Your task to perform on an android device: turn on translation in the chrome app Image 0: 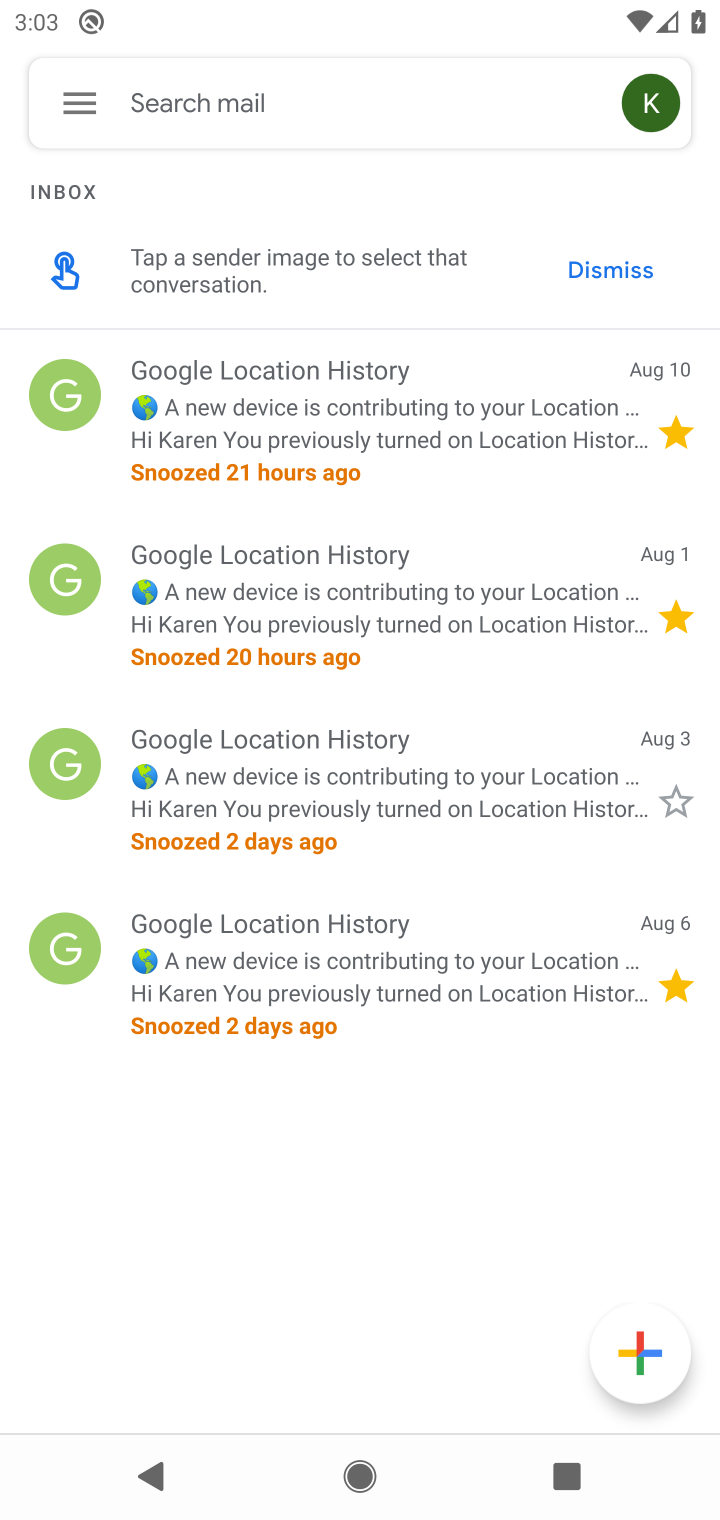
Step 0: press home button
Your task to perform on an android device: turn on translation in the chrome app Image 1: 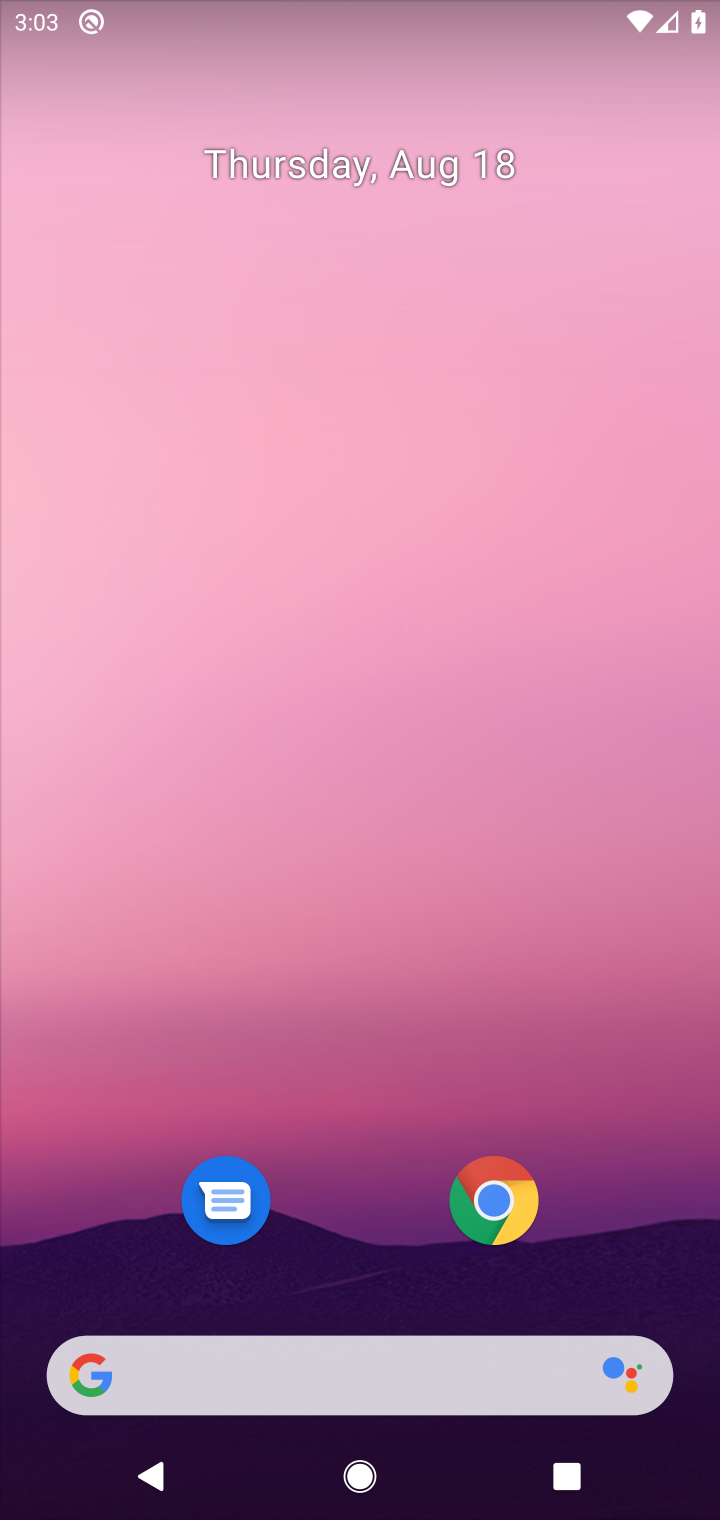
Step 1: drag from (398, 1196) to (603, 4)
Your task to perform on an android device: turn on translation in the chrome app Image 2: 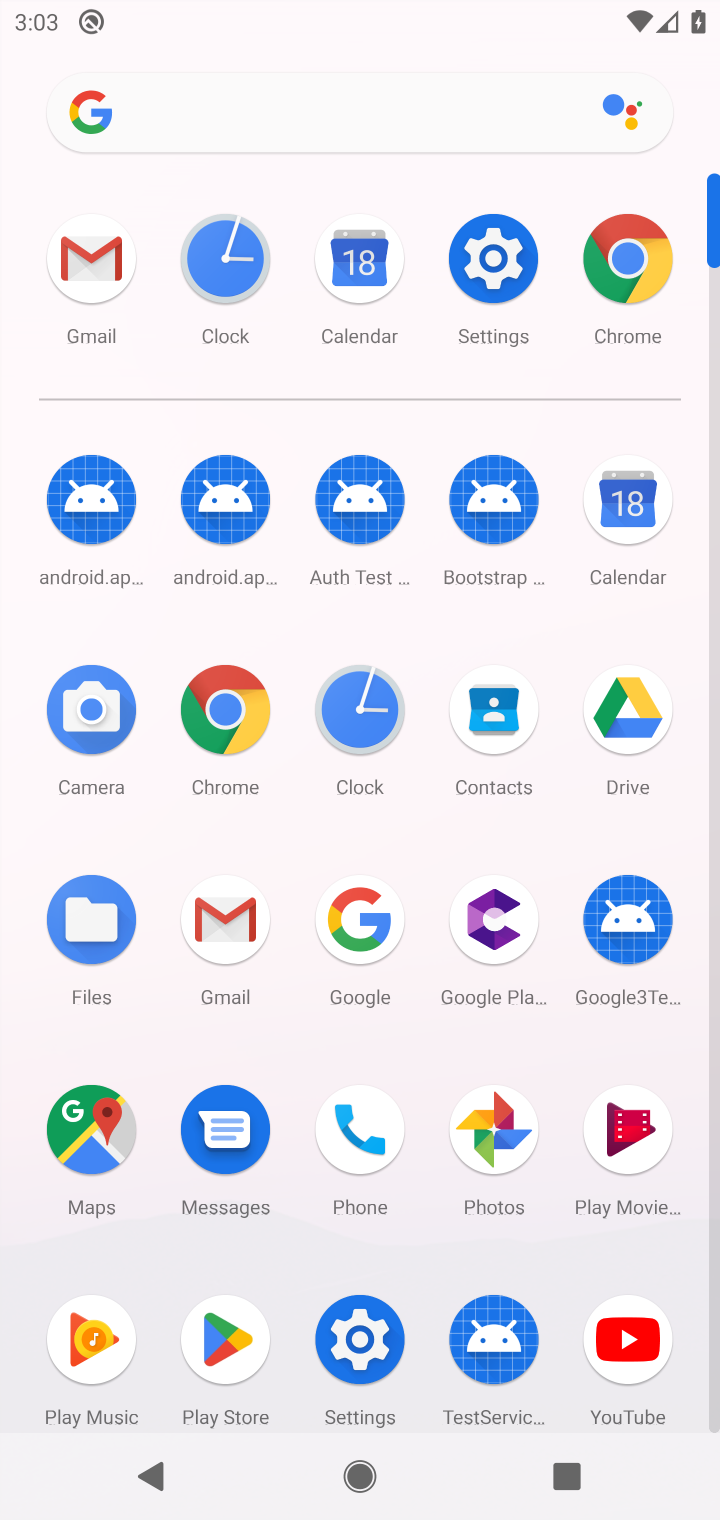
Step 2: click (225, 712)
Your task to perform on an android device: turn on translation in the chrome app Image 3: 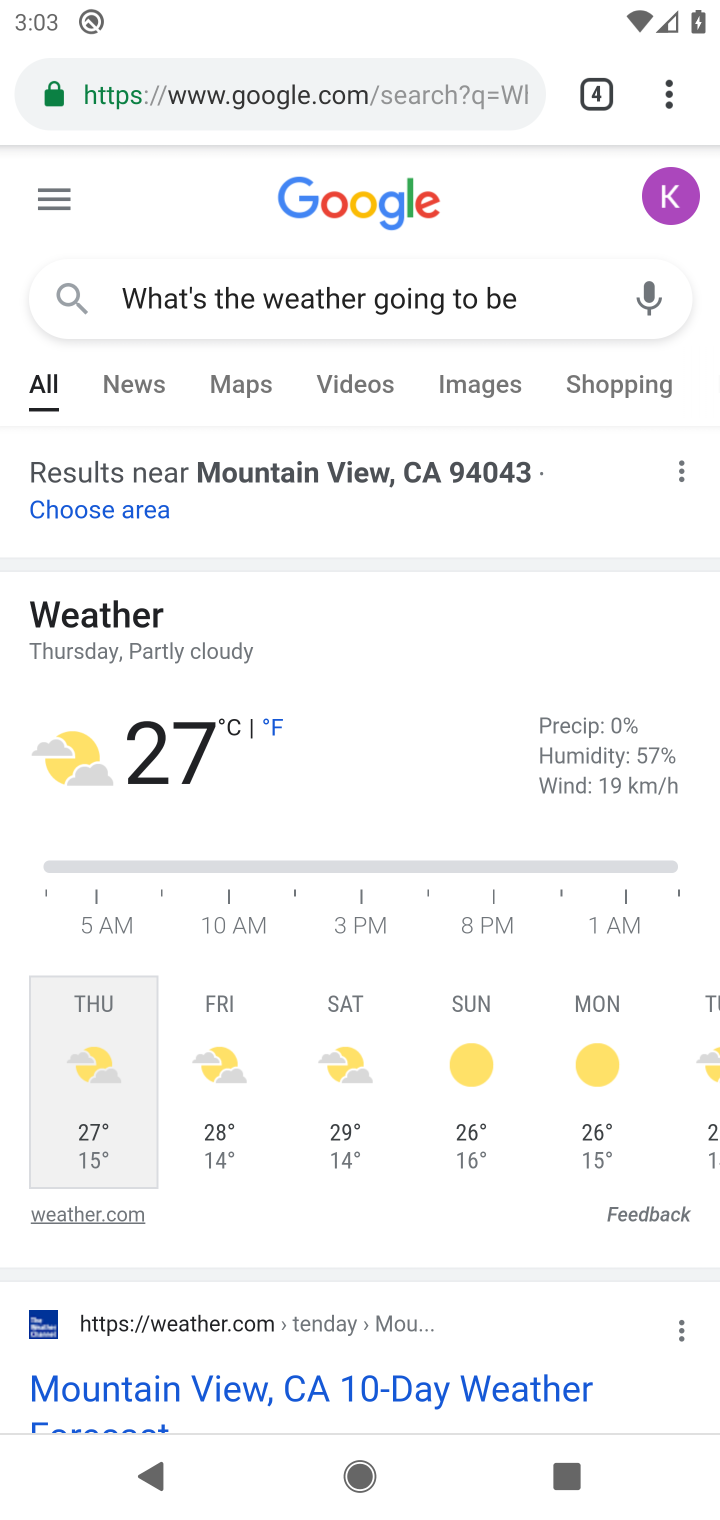
Step 3: drag from (699, 92) to (350, 1057)
Your task to perform on an android device: turn on translation in the chrome app Image 4: 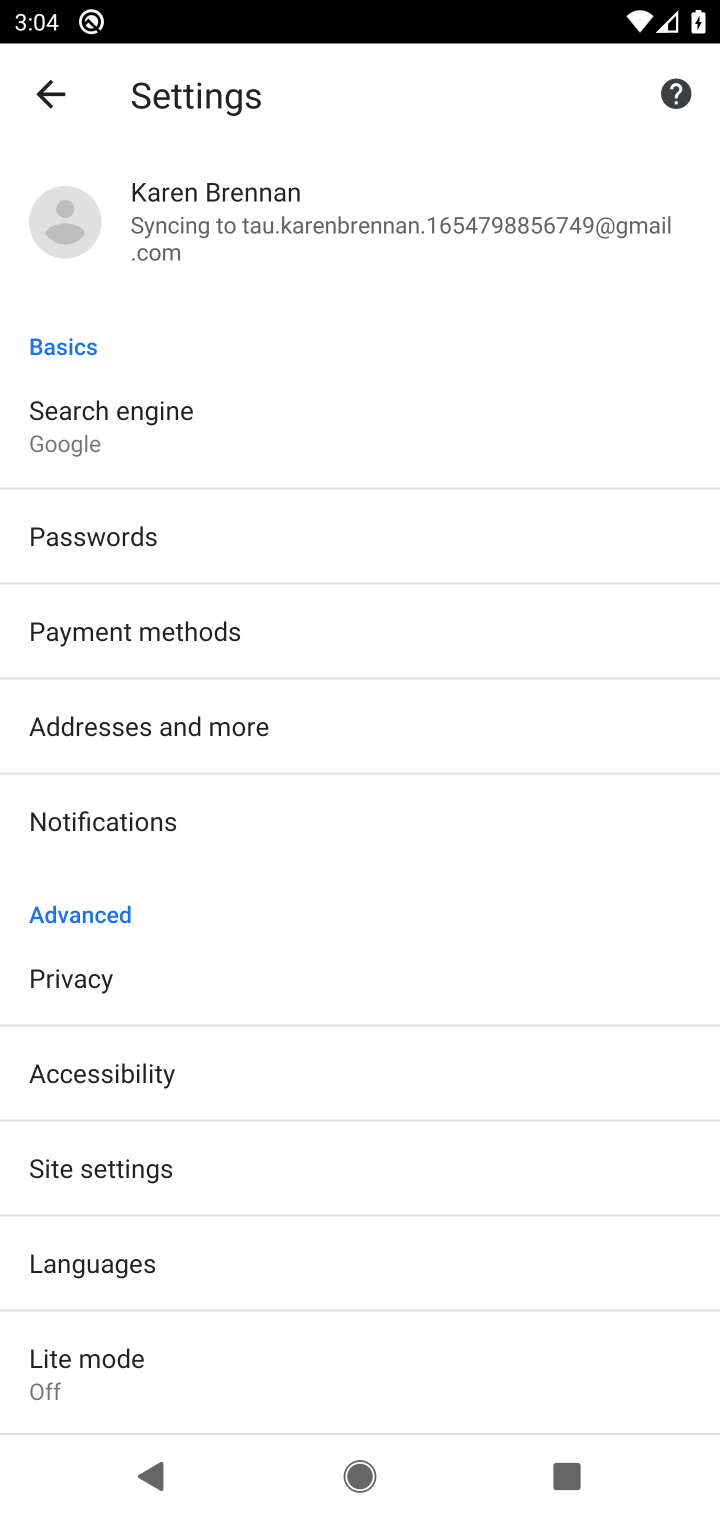
Step 4: click (160, 1255)
Your task to perform on an android device: turn on translation in the chrome app Image 5: 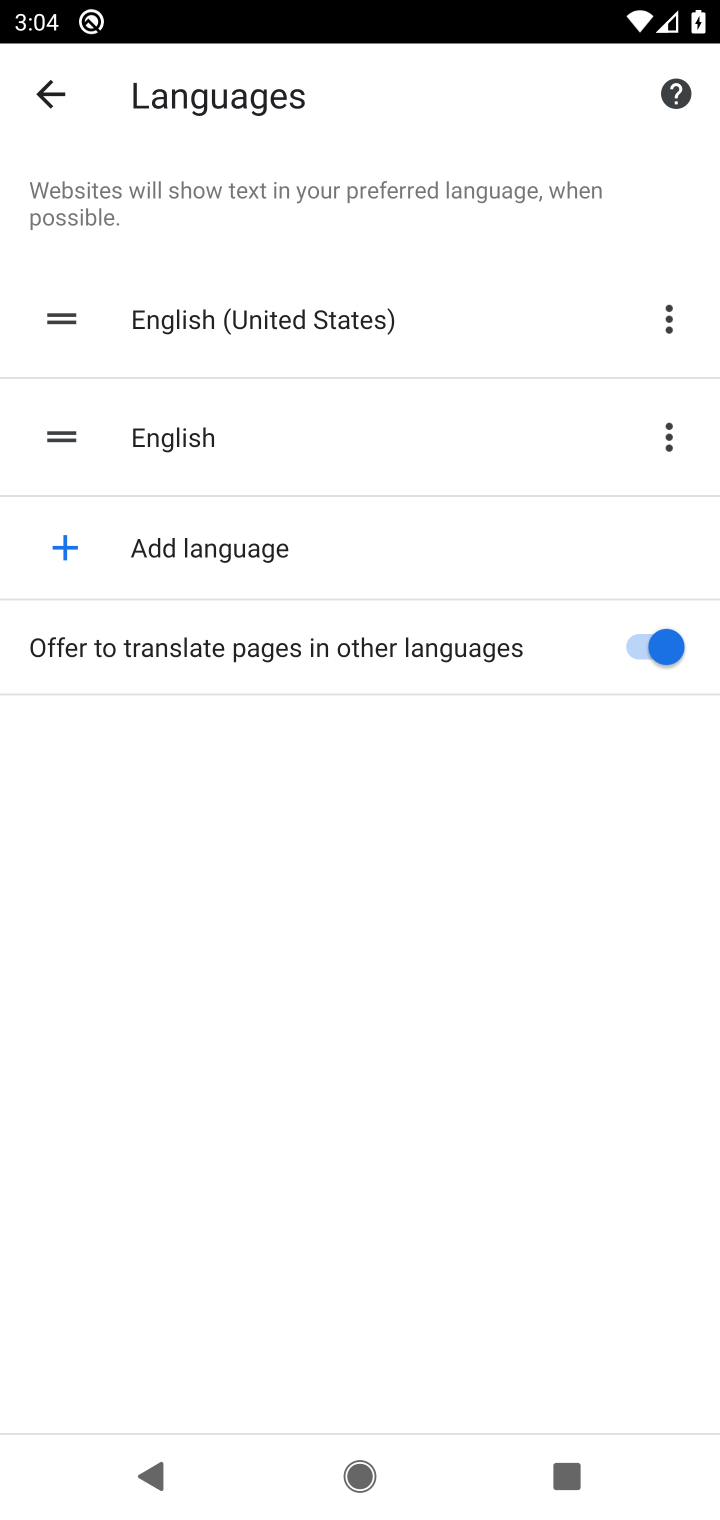
Step 5: task complete